Your task to perform on an android device: Go to internet settings Image 0: 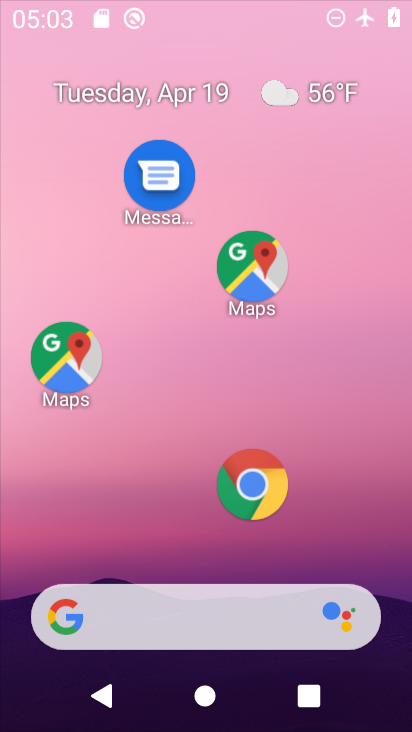
Step 0: click (317, 88)
Your task to perform on an android device: Go to internet settings Image 1: 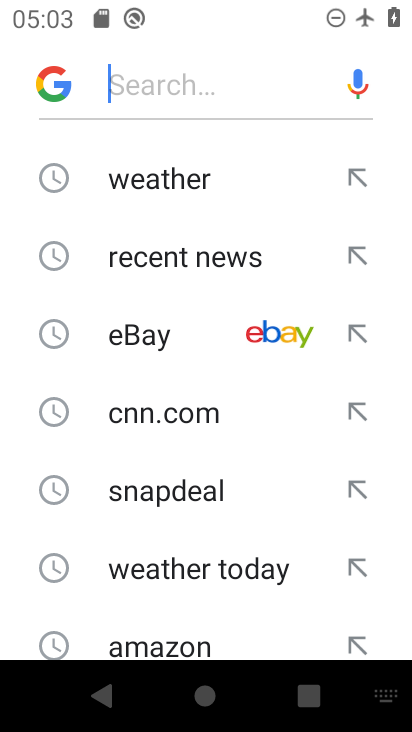
Step 1: task complete